Your task to perform on an android device: Open settings on Google Maps Image 0: 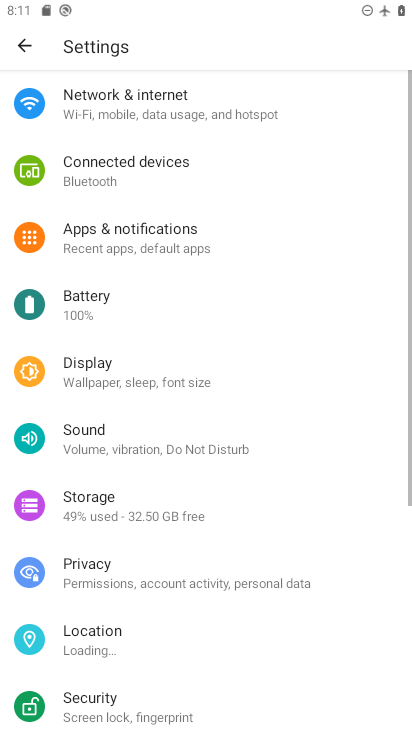
Step 0: drag from (374, 646) to (297, 150)
Your task to perform on an android device: Open settings on Google Maps Image 1: 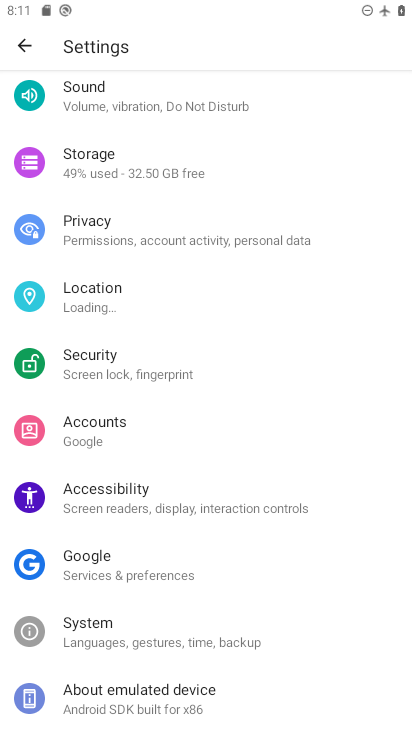
Step 1: press home button
Your task to perform on an android device: Open settings on Google Maps Image 2: 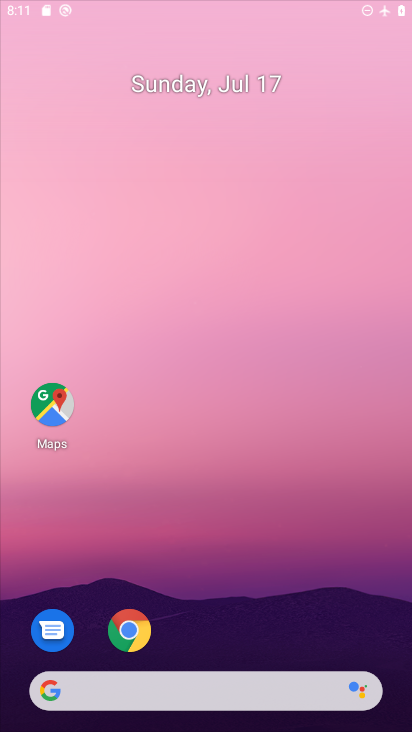
Step 2: drag from (384, 657) to (277, 61)
Your task to perform on an android device: Open settings on Google Maps Image 3: 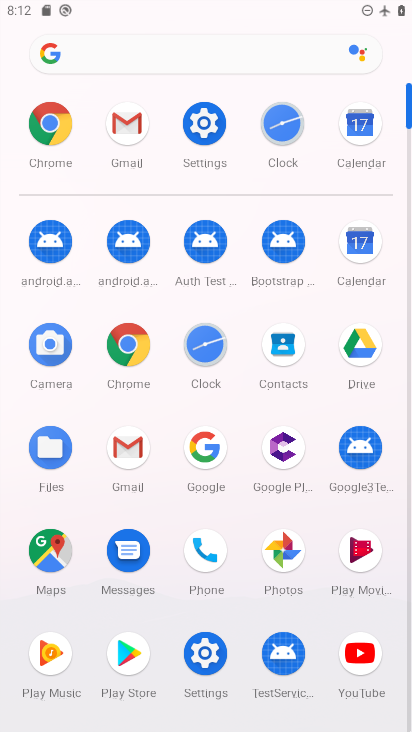
Step 3: click (55, 539)
Your task to perform on an android device: Open settings on Google Maps Image 4: 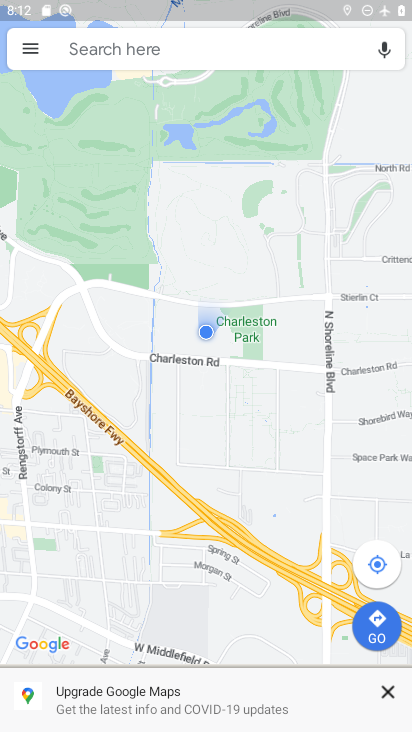
Step 4: click (21, 56)
Your task to perform on an android device: Open settings on Google Maps Image 5: 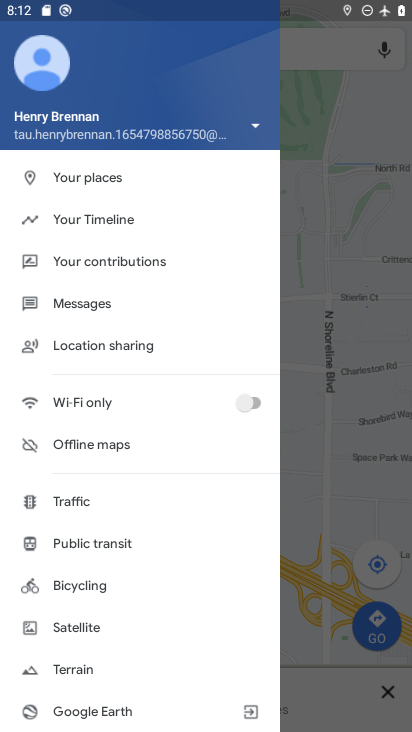
Step 5: drag from (56, 661) to (47, 183)
Your task to perform on an android device: Open settings on Google Maps Image 6: 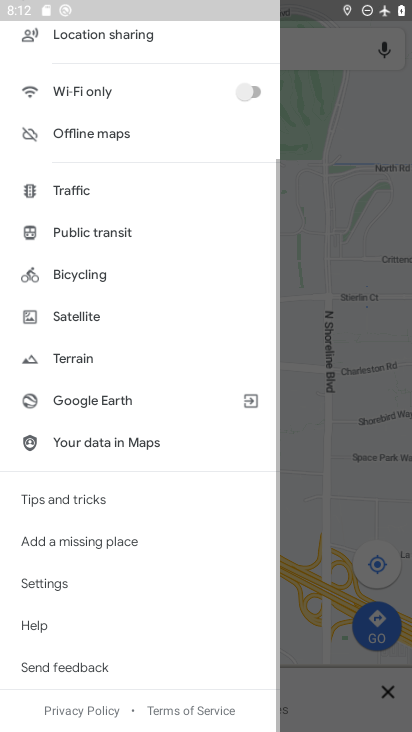
Step 6: click (60, 590)
Your task to perform on an android device: Open settings on Google Maps Image 7: 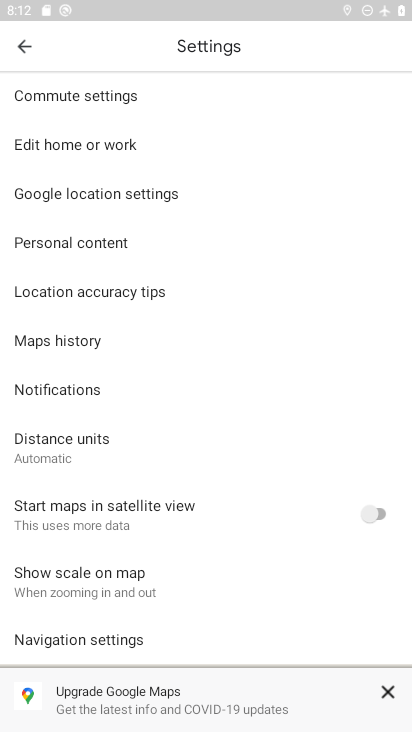
Step 7: task complete